Your task to perform on an android device: turn on notifications settings in the gmail app Image 0: 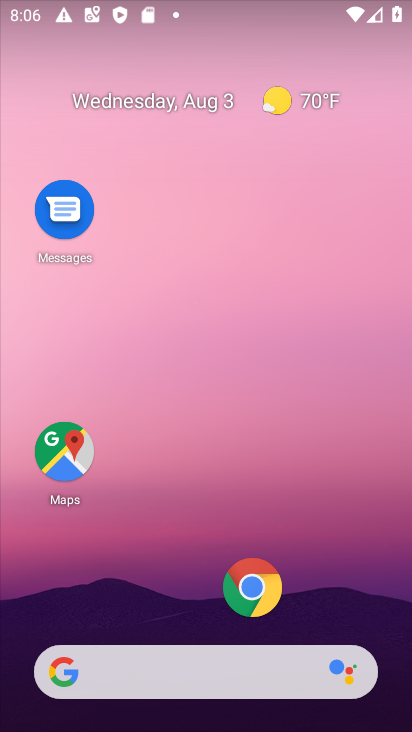
Step 0: drag from (140, 587) to (153, 86)
Your task to perform on an android device: turn on notifications settings in the gmail app Image 1: 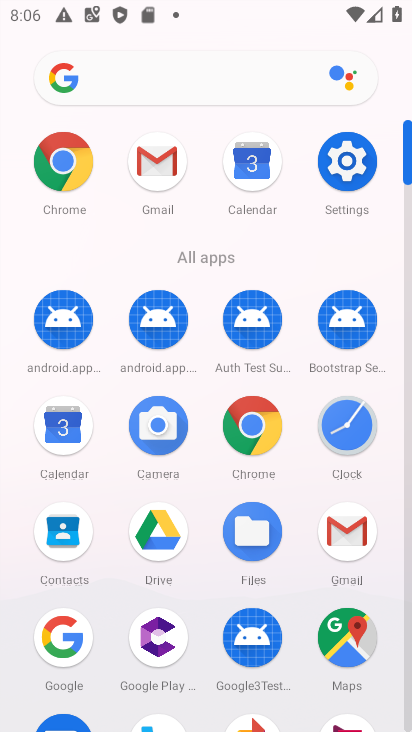
Step 1: click (154, 166)
Your task to perform on an android device: turn on notifications settings in the gmail app Image 2: 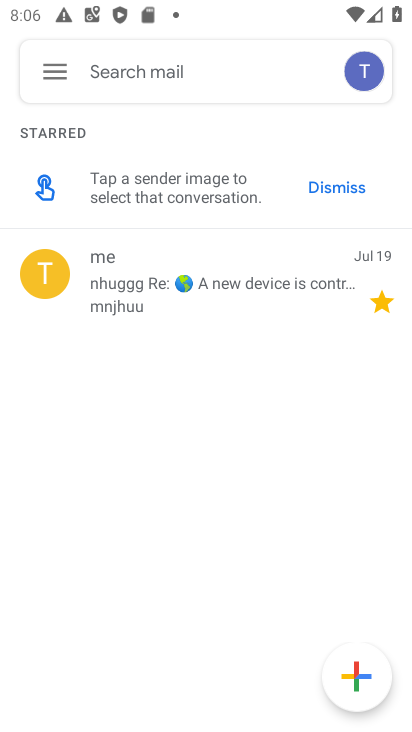
Step 2: click (49, 67)
Your task to perform on an android device: turn on notifications settings in the gmail app Image 3: 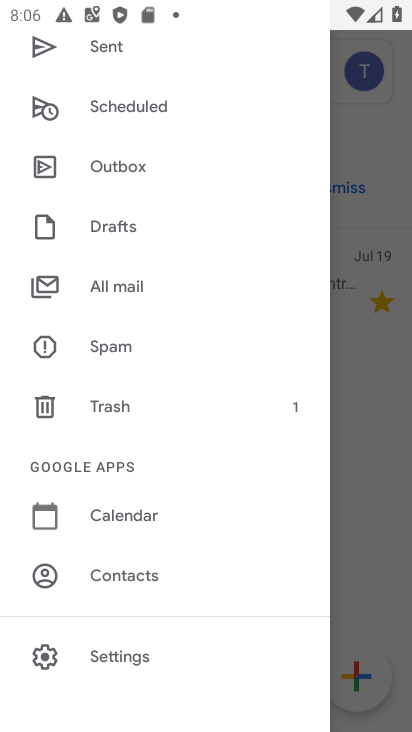
Step 3: click (139, 653)
Your task to perform on an android device: turn on notifications settings in the gmail app Image 4: 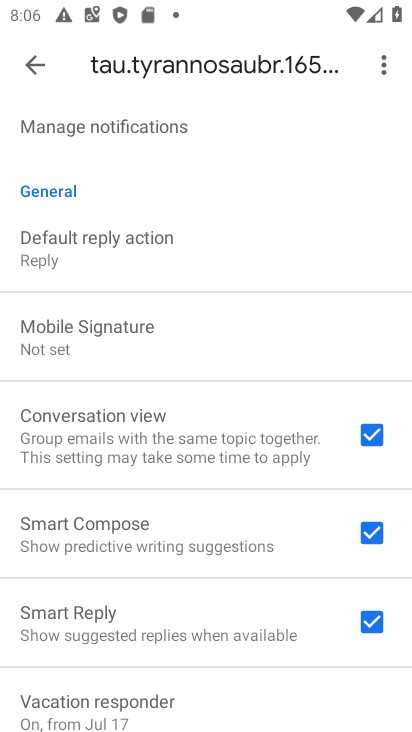
Step 4: drag from (161, 546) to (167, 621)
Your task to perform on an android device: turn on notifications settings in the gmail app Image 5: 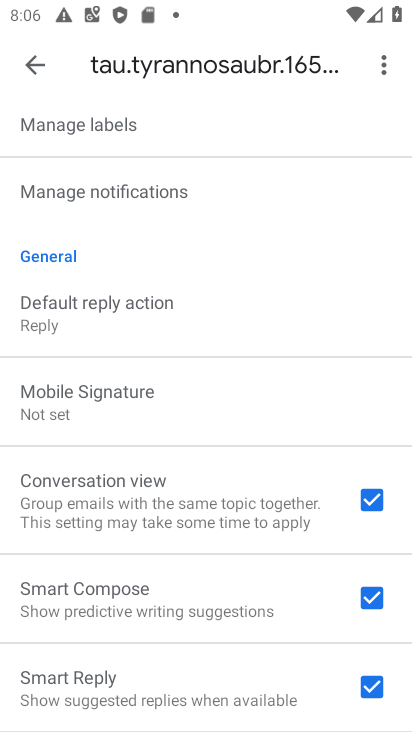
Step 5: click (157, 184)
Your task to perform on an android device: turn on notifications settings in the gmail app Image 6: 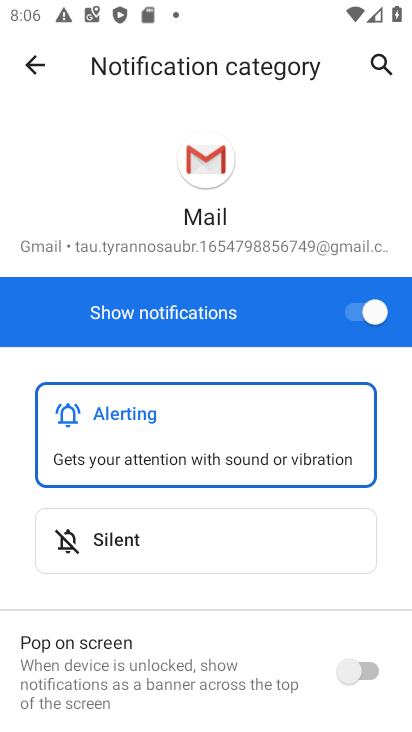
Step 6: task complete